Your task to perform on an android device: set the timer Image 0: 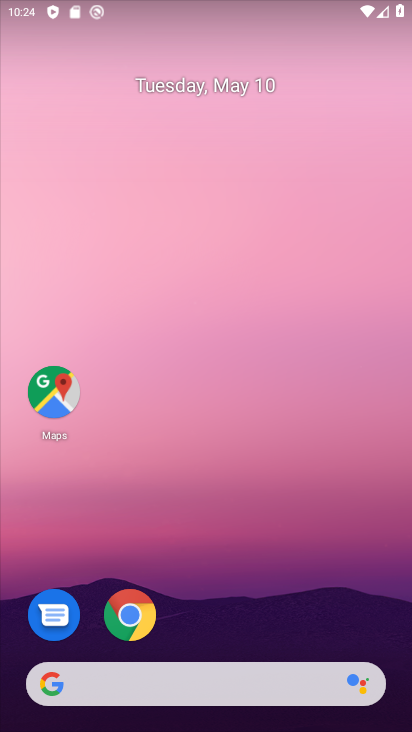
Step 0: drag from (246, 610) to (188, 252)
Your task to perform on an android device: set the timer Image 1: 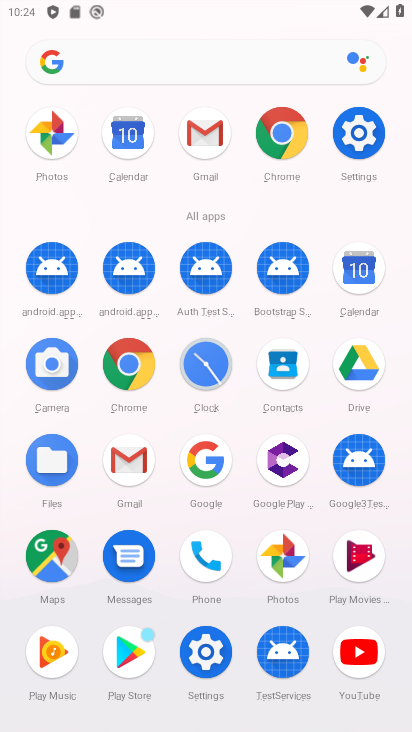
Step 1: click (208, 363)
Your task to perform on an android device: set the timer Image 2: 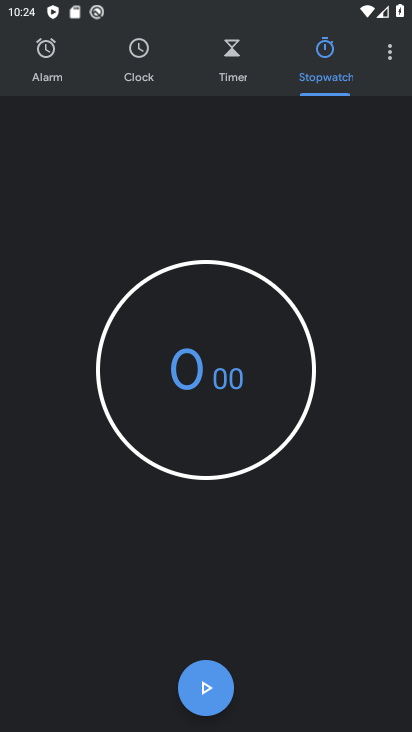
Step 2: click (237, 59)
Your task to perform on an android device: set the timer Image 3: 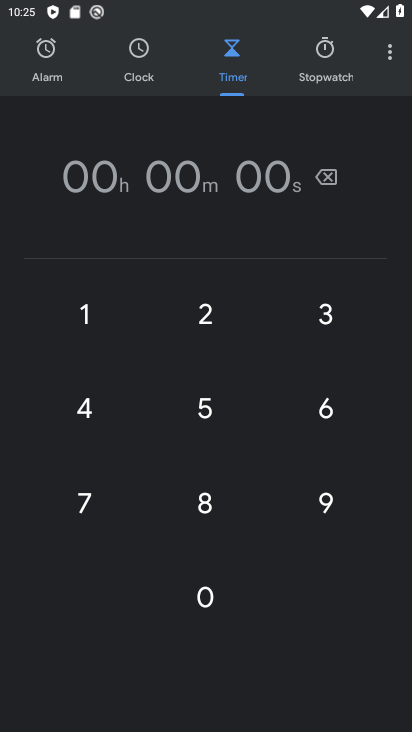
Step 3: type "123"
Your task to perform on an android device: set the timer Image 4: 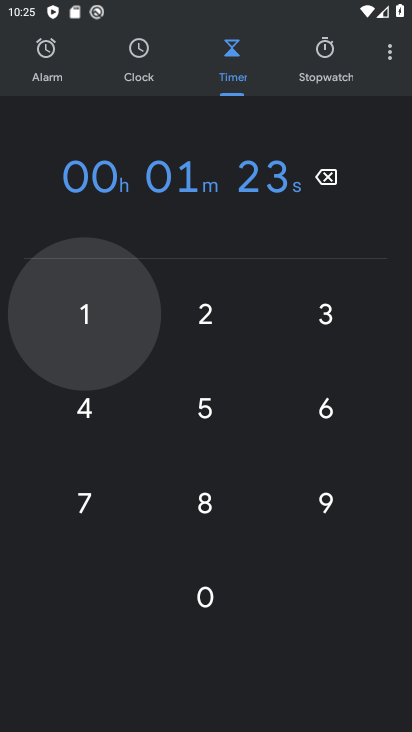
Step 4: type ""
Your task to perform on an android device: set the timer Image 5: 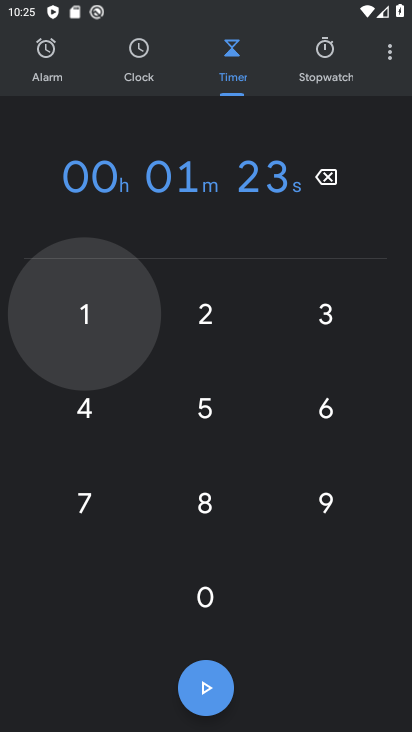
Step 5: click (214, 683)
Your task to perform on an android device: set the timer Image 6: 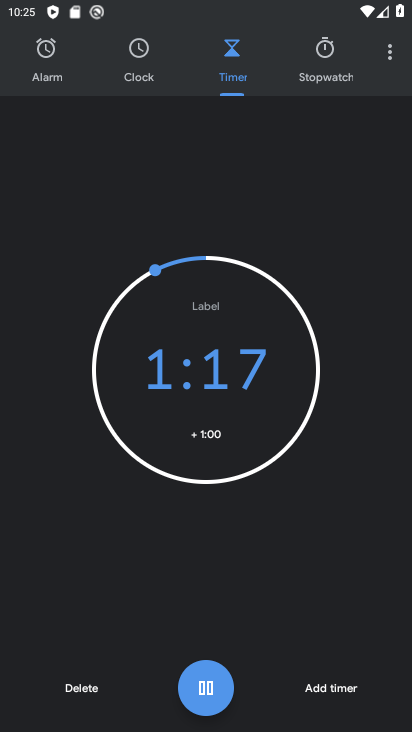
Step 6: click (218, 687)
Your task to perform on an android device: set the timer Image 7: 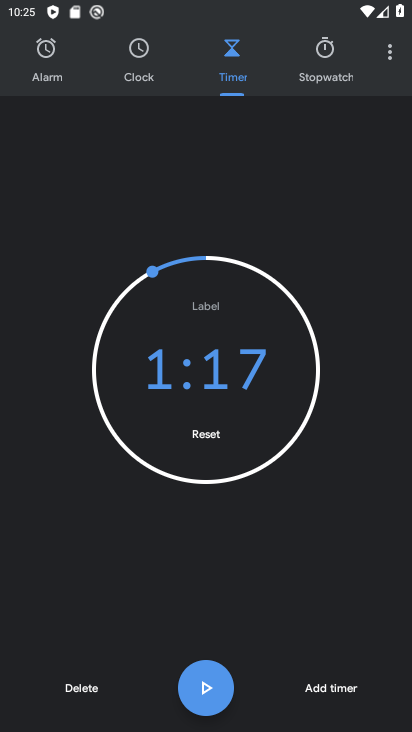
Step 7: task complete